Your task to perform on an android device: Go to settings Image 0: 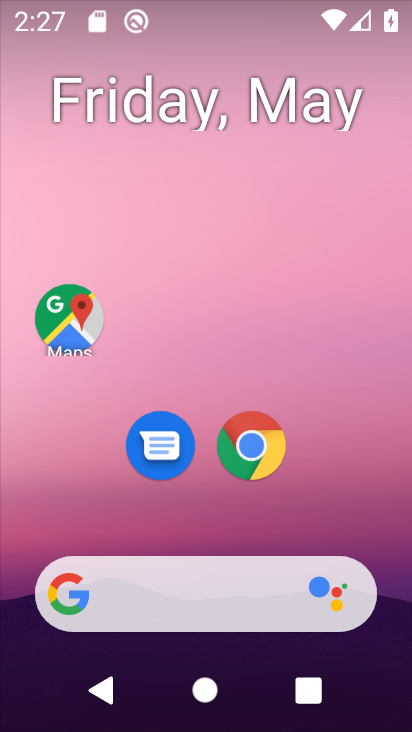
Step 0: drag from (217, 523) to (256, 62)
Your task to perform on an android device: Go to settings Image 1: 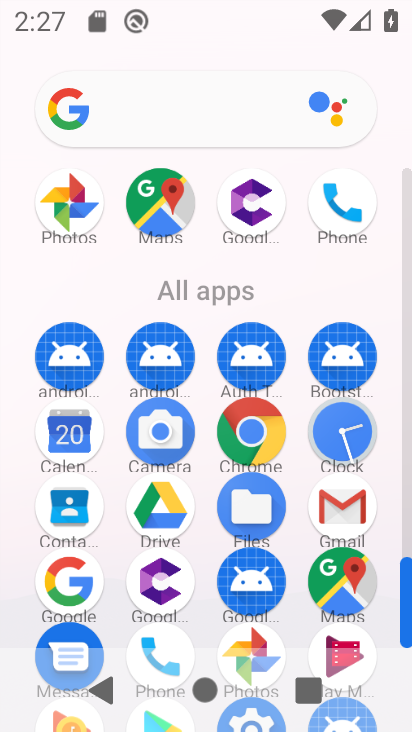
Step 1: drag from (209, 607) to (198, 229)
Your task to perform on an android device: Go to settings Image 2: 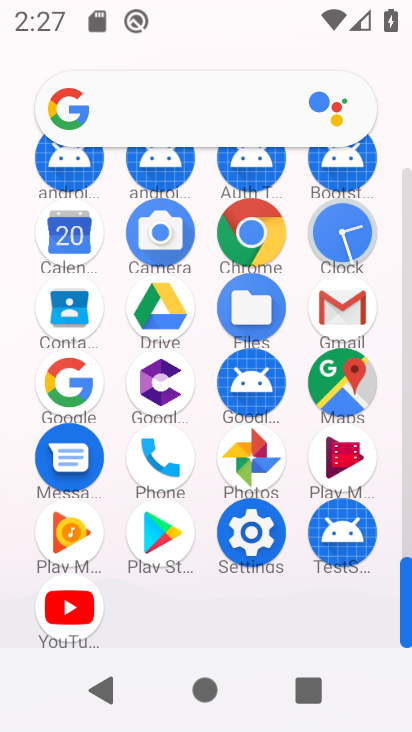
Step 2: click (246, 556)
Your task to perform on an android device: Go to settings Image 3: 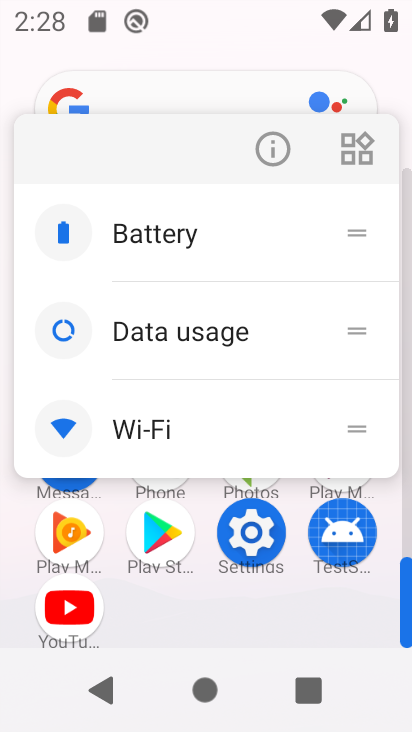
Step 3: click (263, 159)
Your task to perform on an android device: Go to settings Image 4: 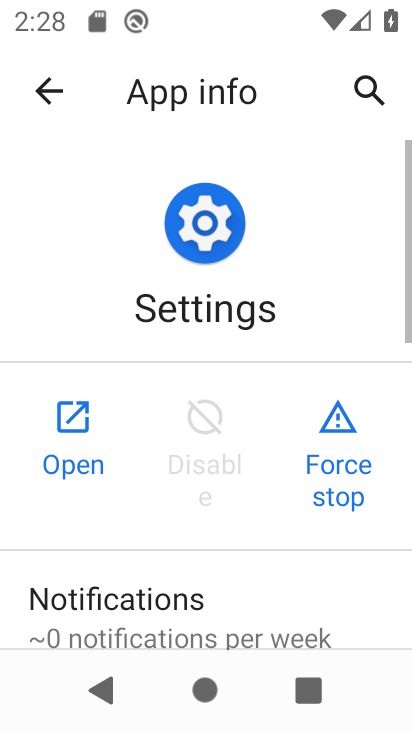
Step 4: click (92, 403)
Your task to perform on an android device: Go to settings Image 5: 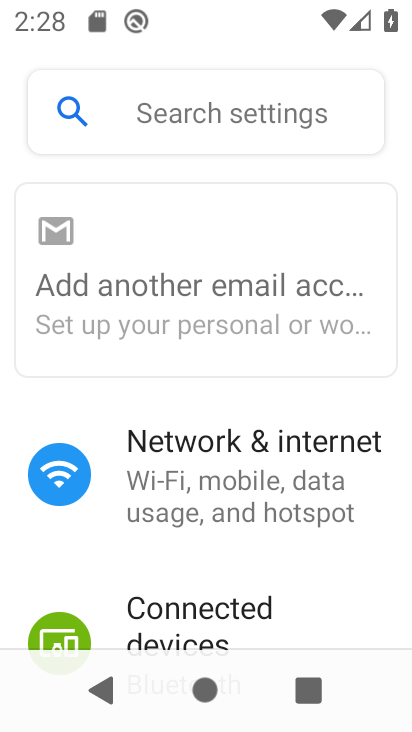
Step 5: task complete